Your task to perform on an android device: find which apps use the phone's location Image 0: 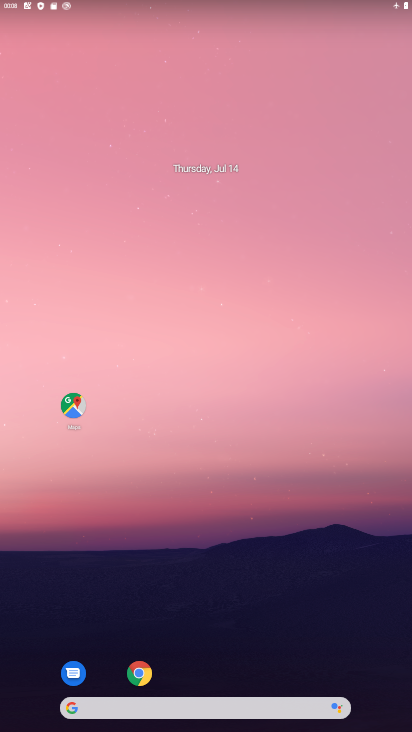
Step 0: drag from (223, 657) to (210, 195)
Your task to perform on an android device: find which apps use the phone's location Image 1: 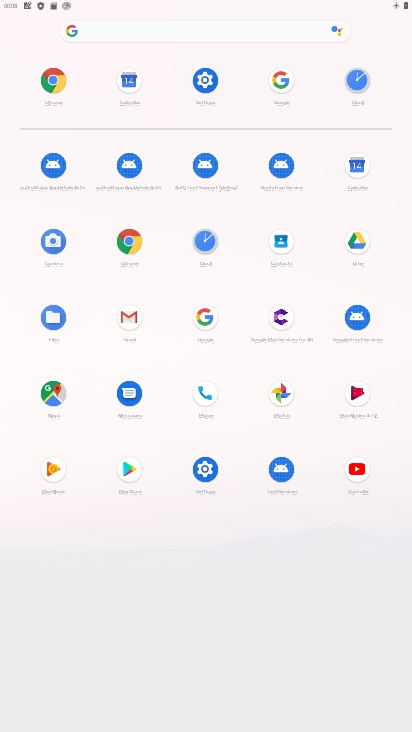
Step 1: click (209, 76)
Your task to perform on an android device: find which apps use the phone's location Image 2: 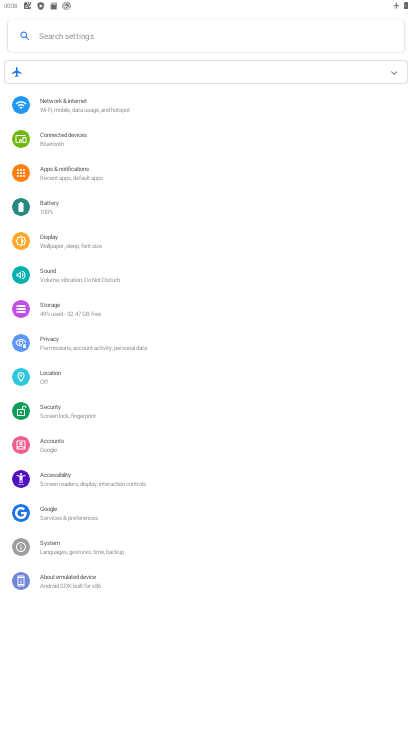
Step 2: click (74, 374)
Your task to perform on an android device: find which apps use the phone's location Image 3: 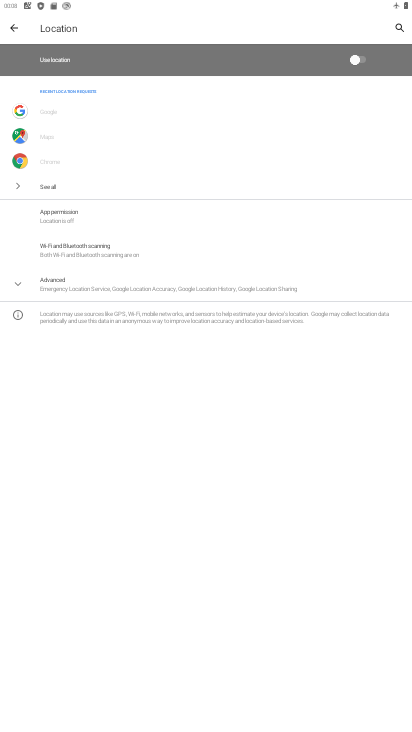
Step 3: click (79, 212)
Your task to perform on an android device: find which apps use the phone's location Image 4: 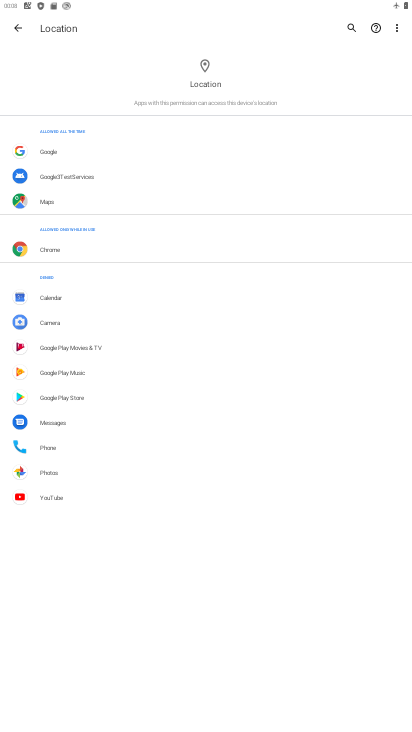
Step 4: task complete